Your task to perform on an android device: Play the last video I watched on Youtube Image 0: 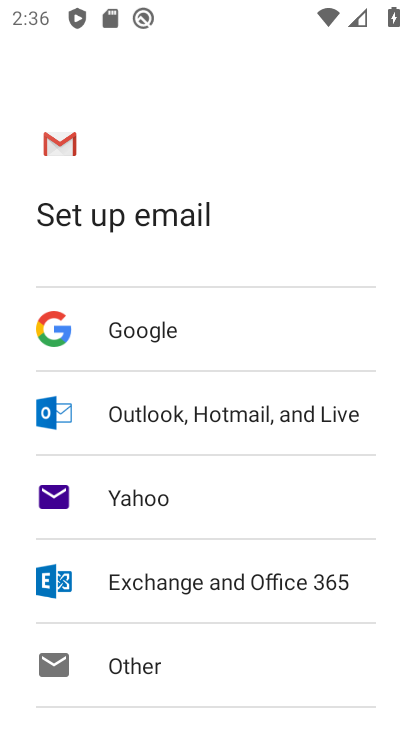
Step 0: press home button
Your task to perform on an android device: Play the last video I watched on Youtube Image 1: 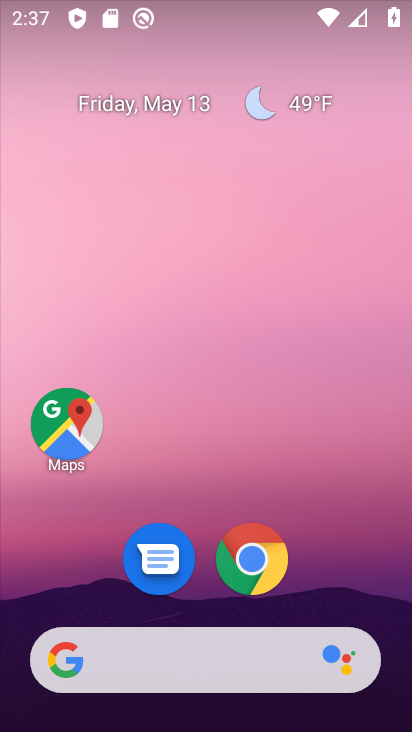
Step 1: drag from (404, 625) to (370, 290)
Your task to perform on an android device: Play the last video I watched on Youtube Image 2: 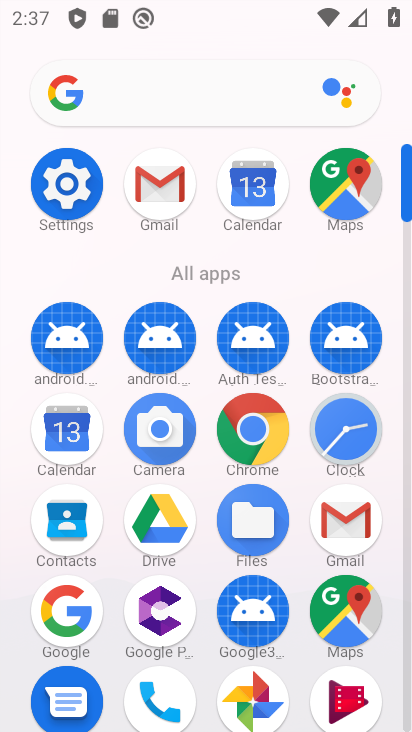
Step 2: click (409, 691)
Your task to perform on an android device: Play the last video I watched on Youtube Image 3: 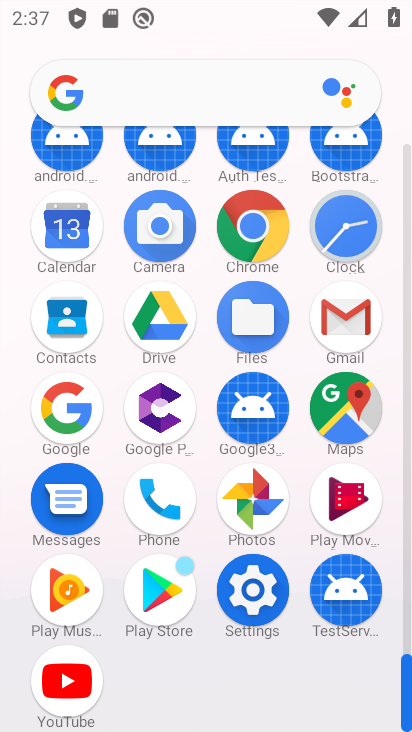
Step 3: click (73, 681)
Your task to perform on an android device: Play the last video I watched on Youtube Image 4: 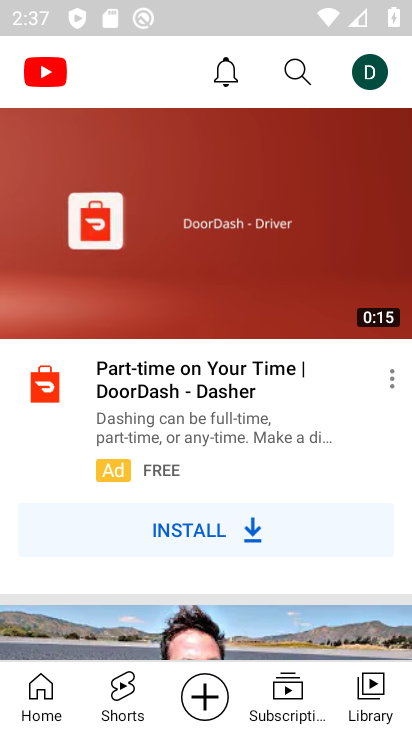
Step 4: click (367, 692)
Your task to perform on an android device: Play the last video I watched on Youtube Image 5: 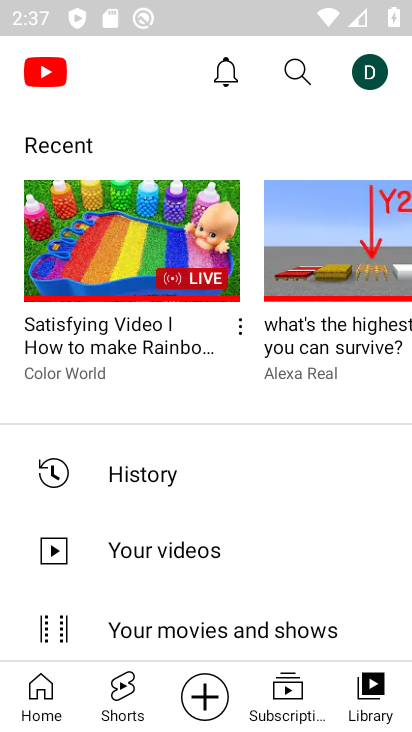
Step 5: click (82, 235)
Your task to perform on an android device: Play the last video I watched on Youtube Image 6: 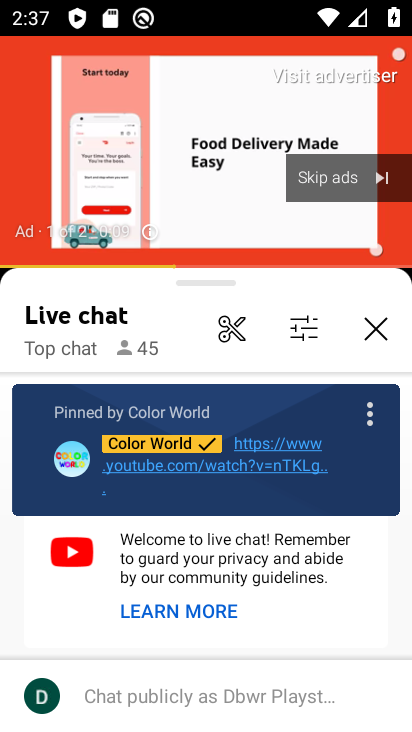
Step 6: click (352, 178)
Your task to perform on an android device: Play the last video I watched on Youtube Image 7: 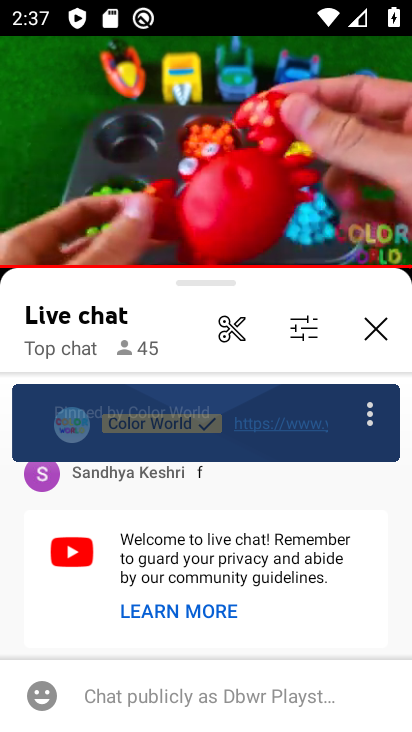
Step 7: click (213, 145)
Your task to perform on an android device: Play the last video I watched on Youtube Image 8: 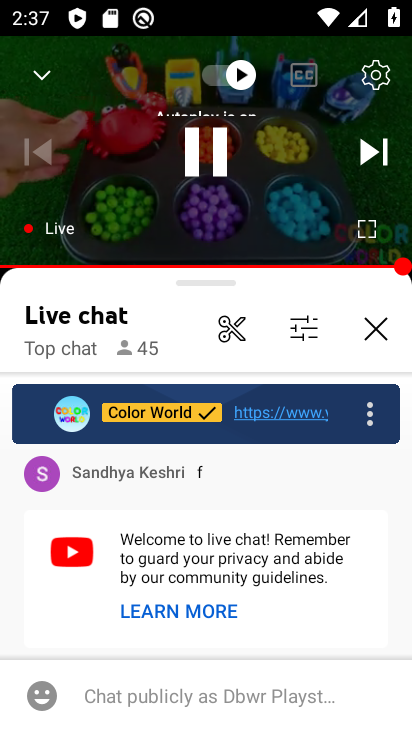
Step 8: click (213, 145)
Your task to perform on an android device: Play the last video I watched on Youtube Image 9: 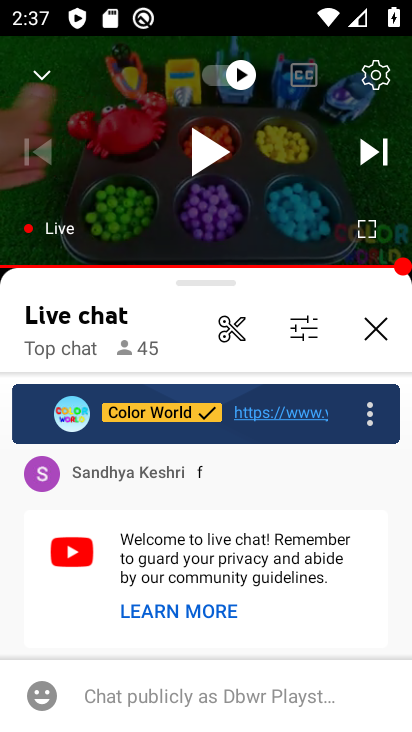
Step 9: task complete